Your task to perform on an android device: check out phone information Image 0: 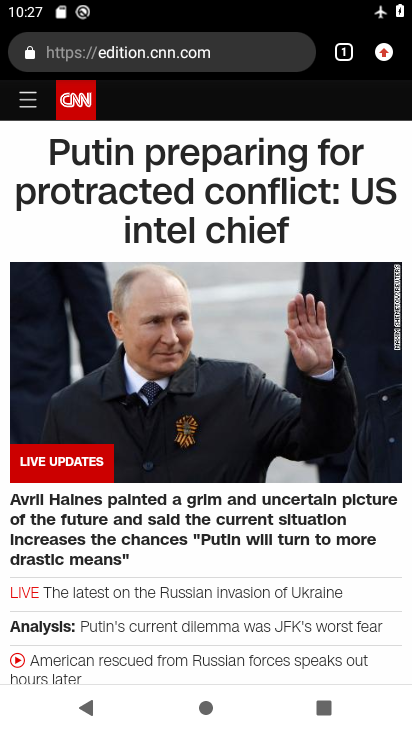
Step 0: press home button
Your task to perform on an android device: check out phone information Image 1: 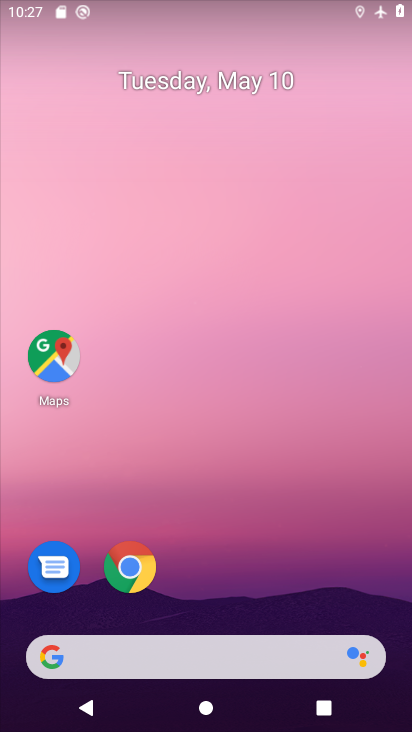
Step 1: drag from (191, 588) to (237, 4)
Your task to perform on an android device: check out phone information Image 2: 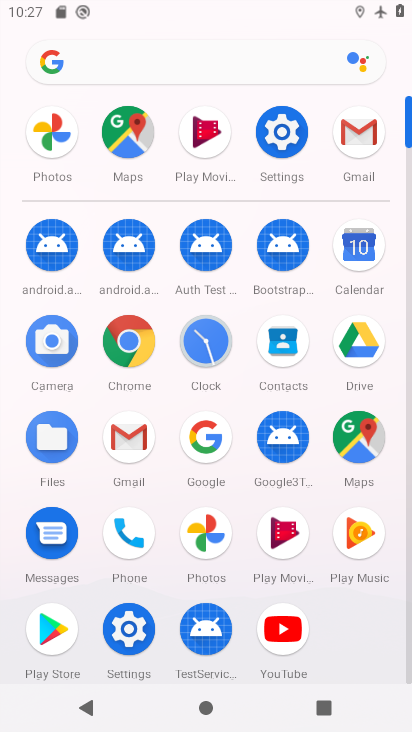
Step 2: click (268, 160)
Your task to perform on an android device: check out phone information Image 3: 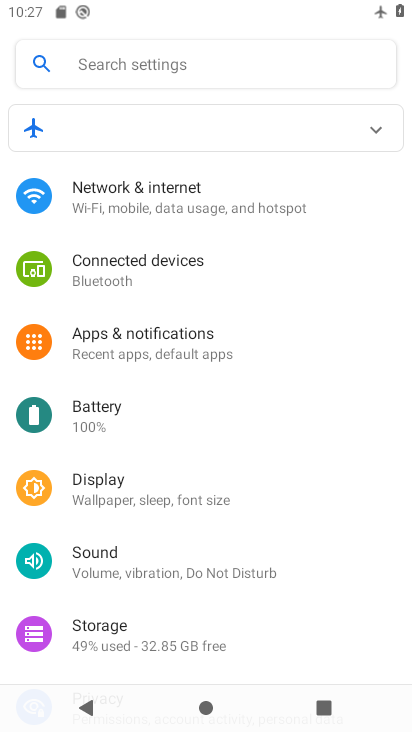
Step 3: drag from (157, 646) to (255, 123)
Your task to perform on an android device: check out phone information Image 4: 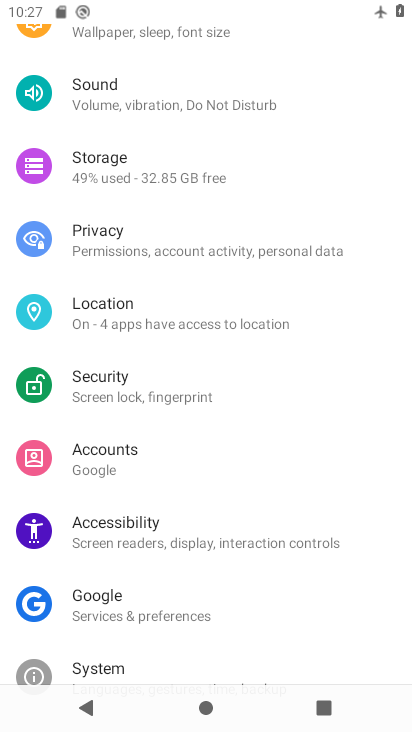
Step 4: drag from (164, 532) to (229, 83)
Your task to perform on an android device: check out phone information Image 5: 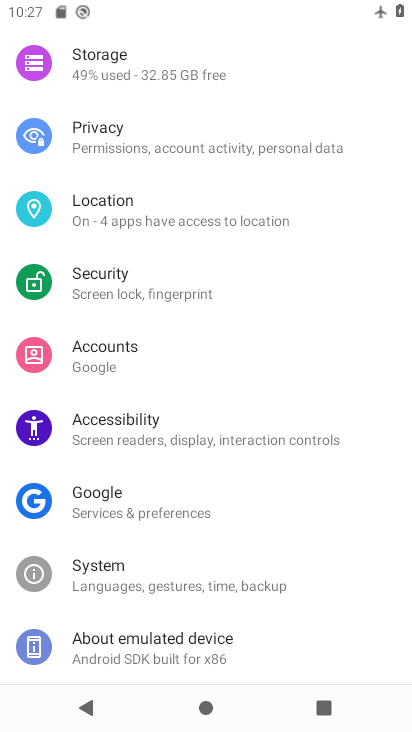
Step 5: click (116, 650)
Your task to perform on an android device: check out phone information Image 6: 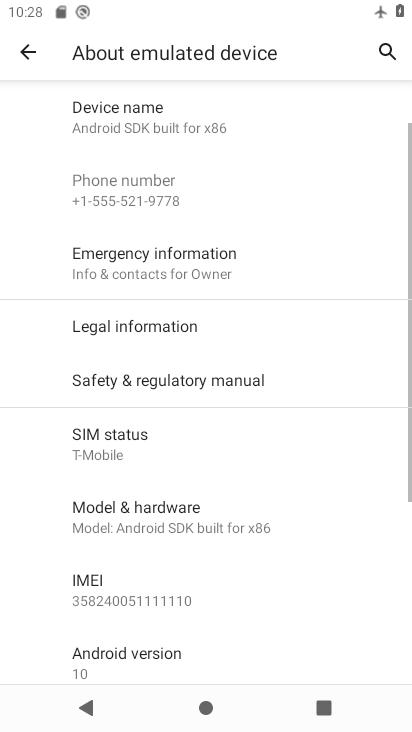
Step 6: task complete